Your task to perform on an android device: create a new album in the google photos Image 0: 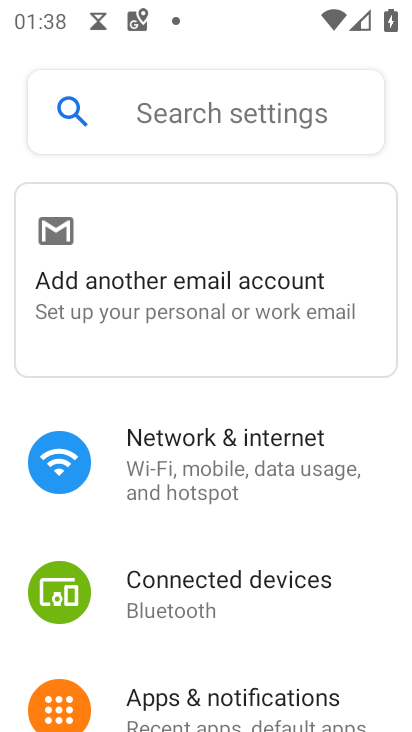
Step 0: press home button
Your task to perform on an android device: create a new album in the google photos Image 1: 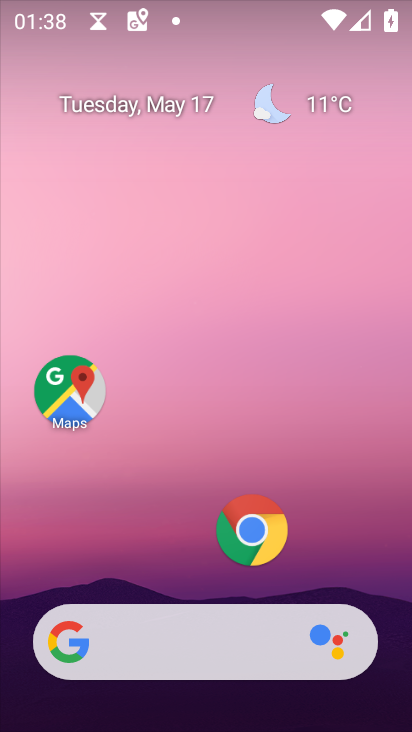
Step 1: drag from (326, 534) to (284, 187)
Your task to perform on an android device: create a new album in the google photos Image 2: 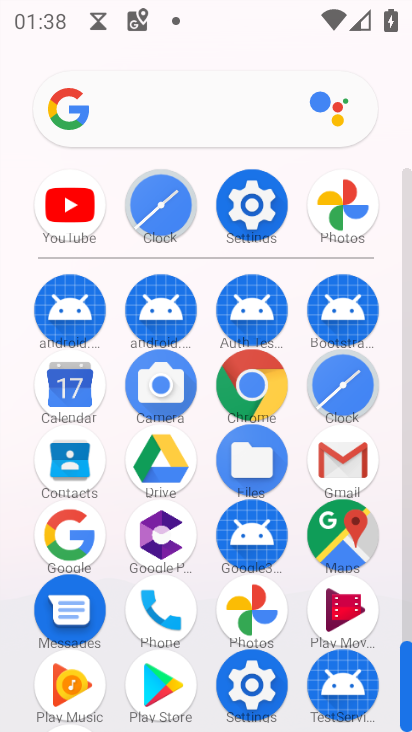
Step 2: click (339, 192)
Your task to perform on an android device: create a new album in the google photos Image 3: 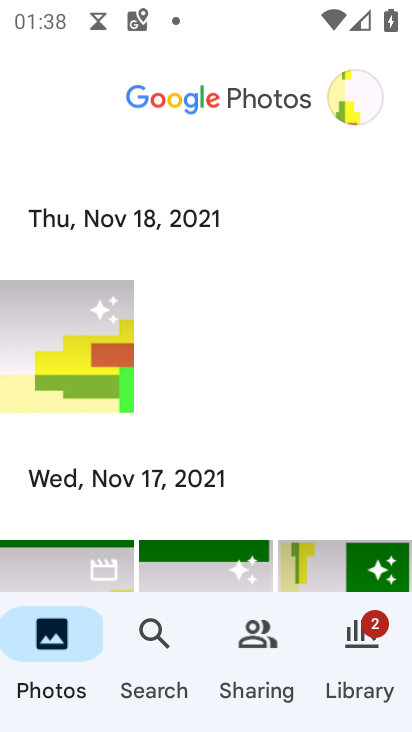
Step 3: click (368, 643)
Your task to perform on an android device: create a new album in the google photos Image 4: 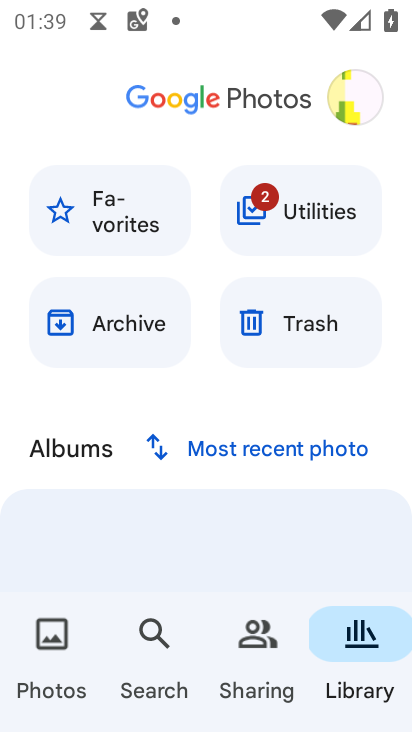
Step 4: drag from (217, 500) to (209, 256)
Your task to perform on an android device: create a new album in the google photos Image 5: 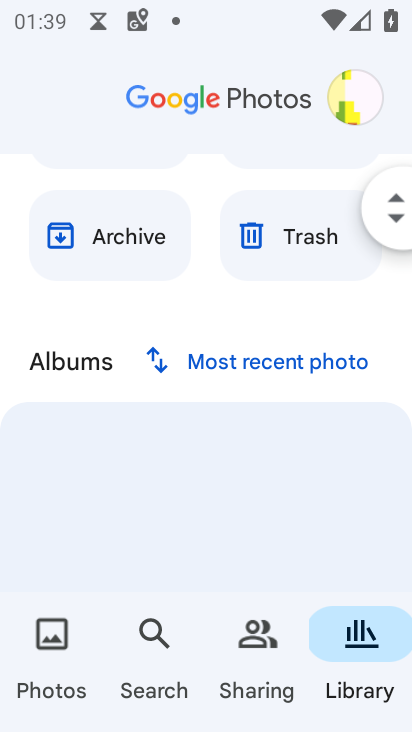
Step 5: drag from (215, 550) to (195, 296)
Your task to perform on an android device: create a new album in the google photos Image 6: 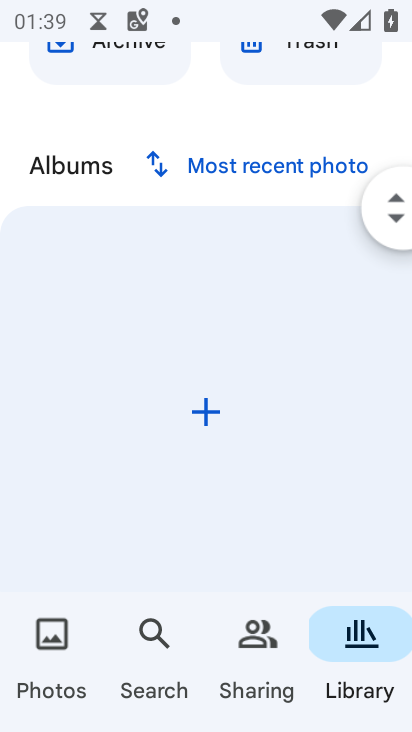
Step 6: click (209, 414)
Your task to perform on an android device: create a new album in the google photos Image 7: 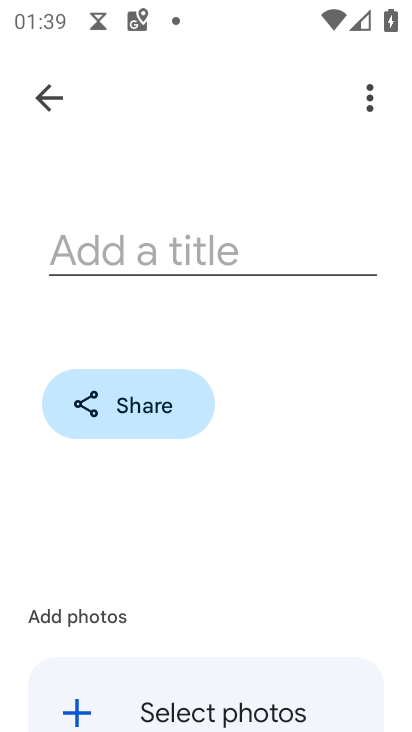
Step 7: click (270, 242)
Your task to perform on an android device: create a new album in the google photos Image 8: 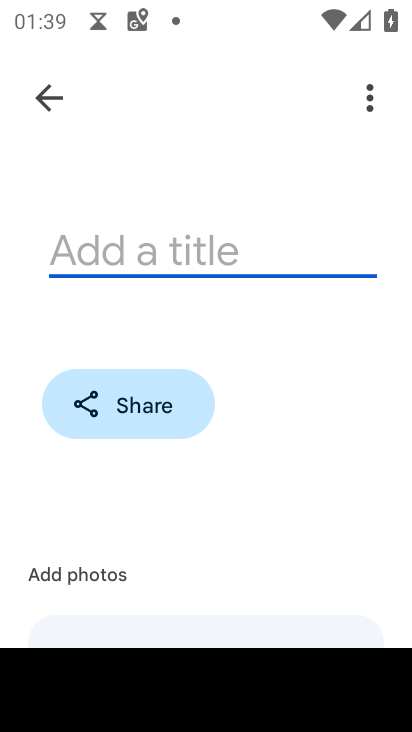
Step 8: type "dgdgd"
Your task to perform on an android device: create a new album in the google photos Image 9: 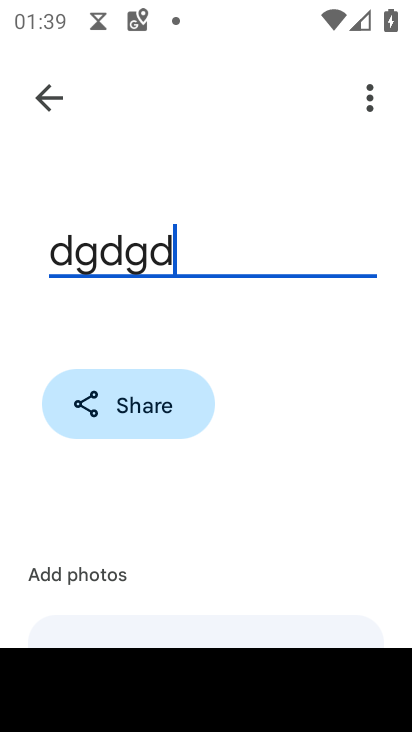
Step 9: drag from (196, 536) to (208, 234)
Your task to perform on an android device: create a new album in the google photos Image 10: 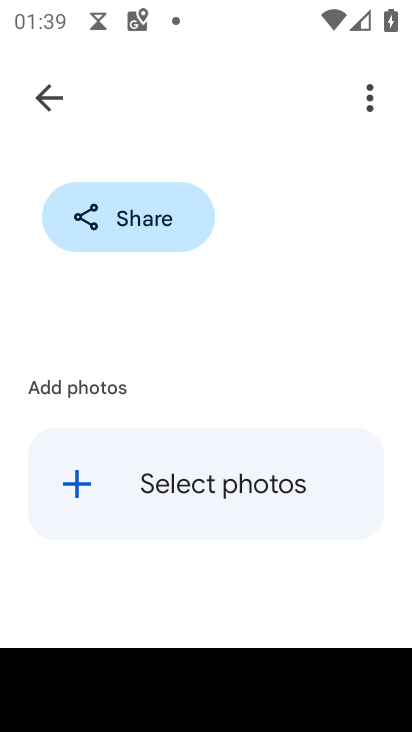
Step 10: click (76, 484)
Your task to perform on an android device: create a new album in the google photos Image 11: 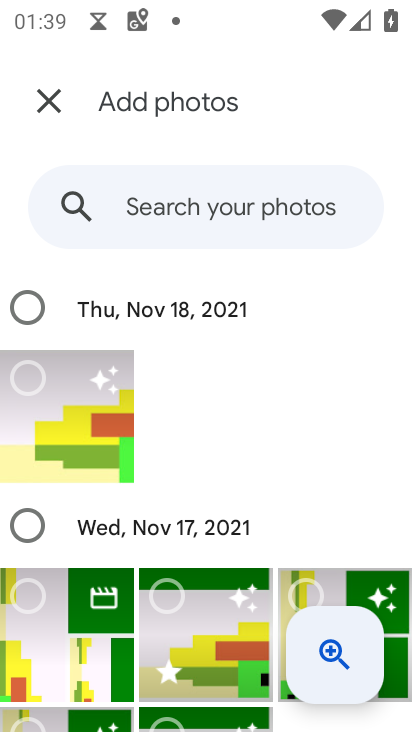
Step 11: click (37, 380)
Your task to perform on an android device: create a new album in the google photos Image 12: 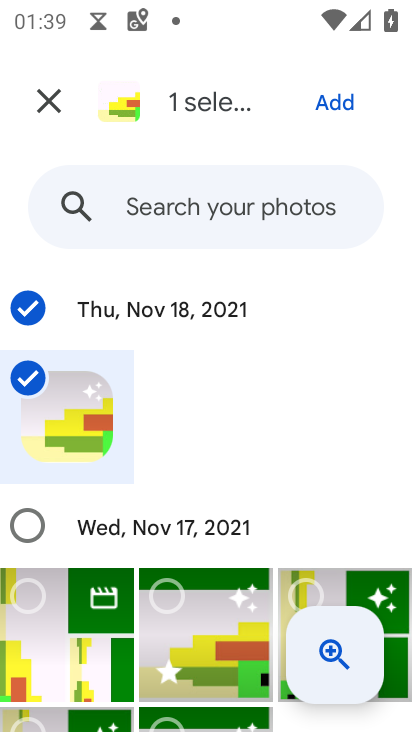
Step 12: click (347, 96)
Your task to perform on an android device: create a new album in the google photos Image 13: 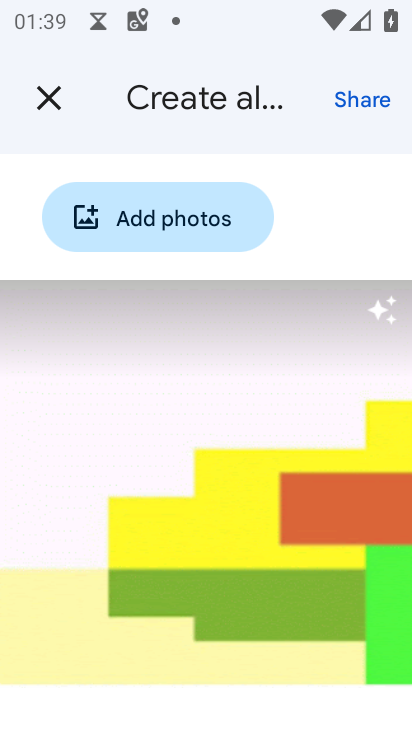
Step 13: task complete